Your task to perform on an android device: change alarm snooze length Image 0: 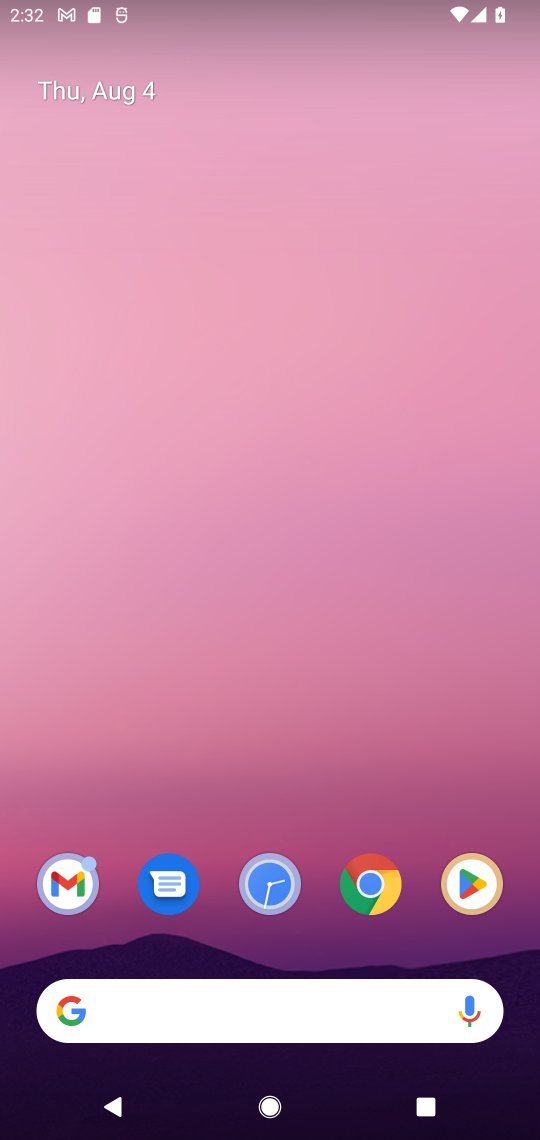
Step 0: drag from (222, 960) to (321, 116)
Your task to perform on an android device: change alarm snooze length Image 1: 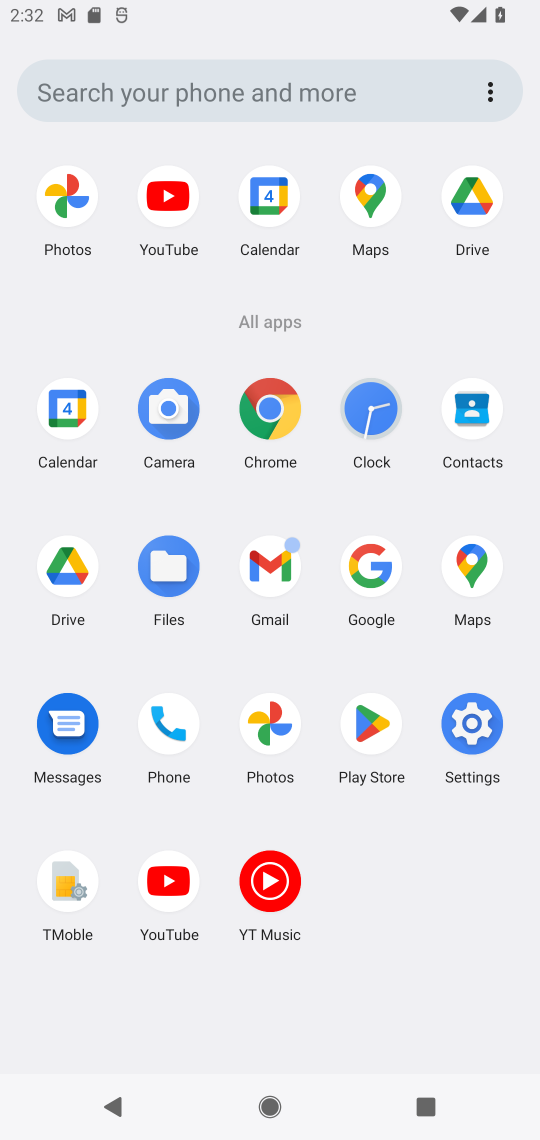
Step 1: click (376, 433)
Your task to perform on an android device: change alarm snooze length Image 2: 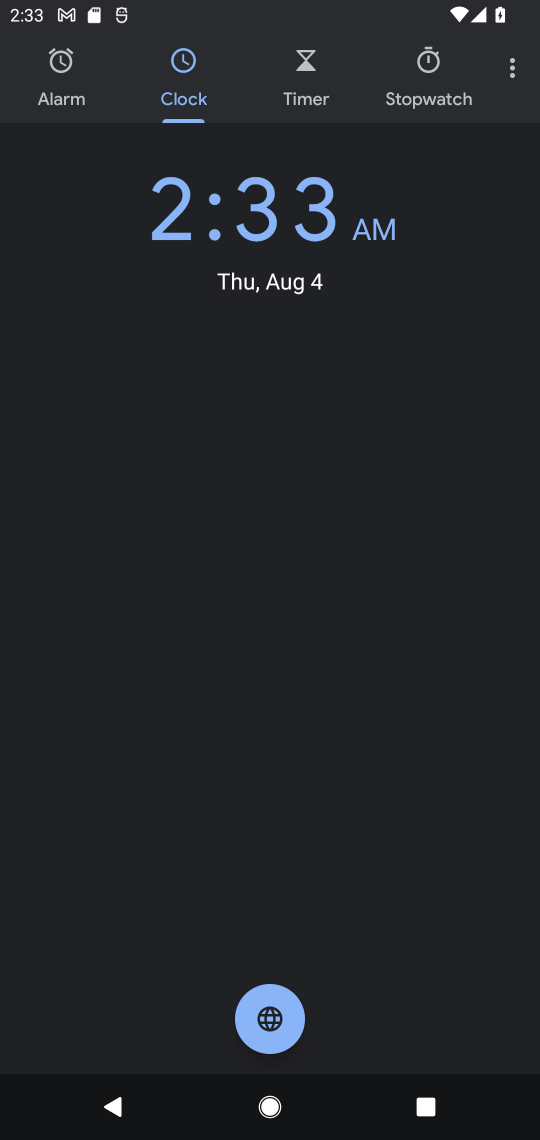
Step 2: press home button
Your task to perform on an android device: change alarm snooze length Image 3: 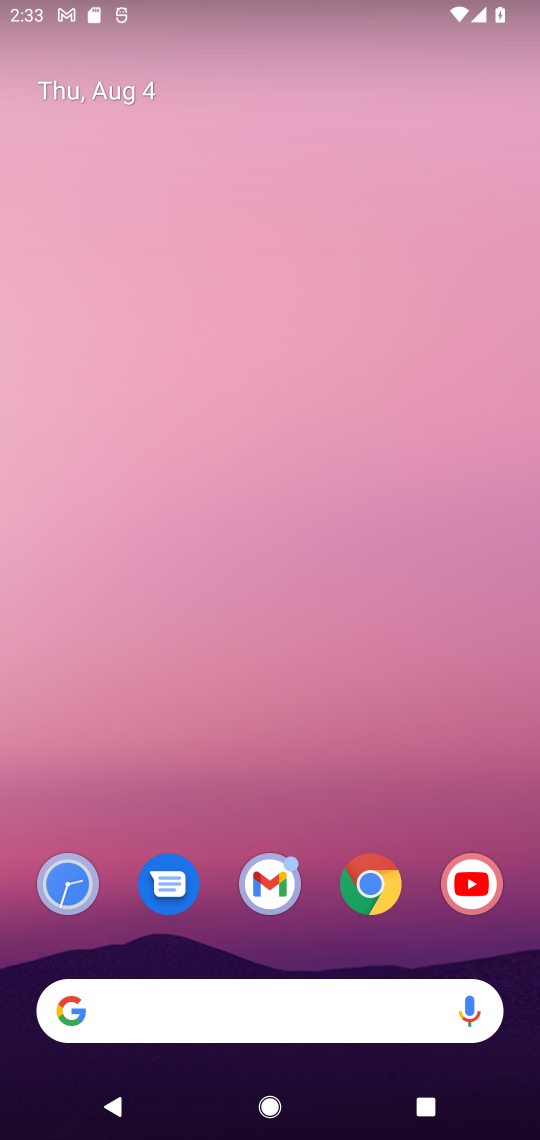
Step 3: drag from (299, 955) to (320, 367)
Your task to perform on an android device: change alarm snooze length Image 4: 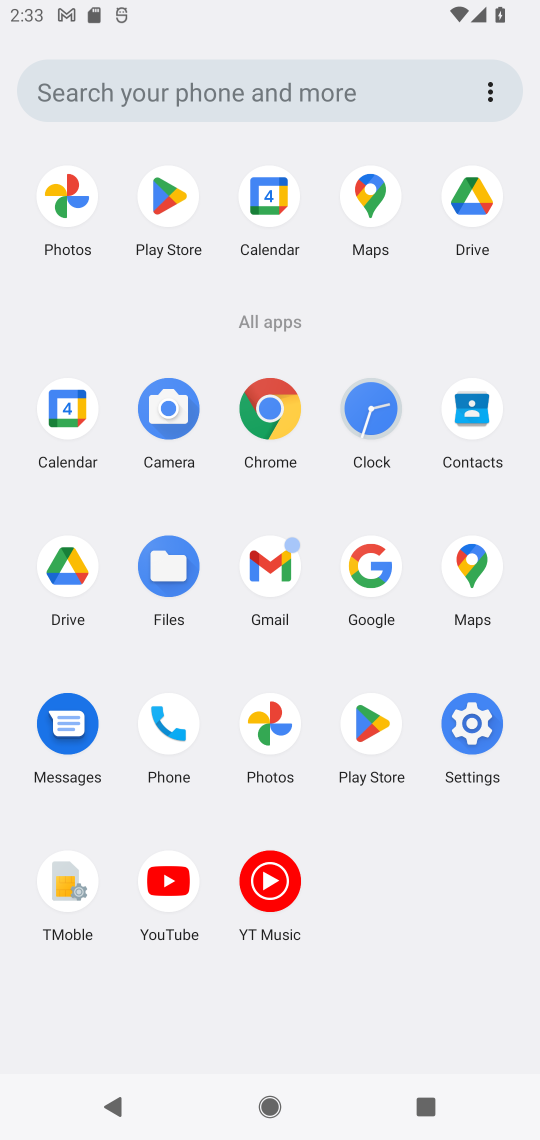
Step 4: click (354, 407)
Your task to perform on an android device: change alarm snooze length Image 5: 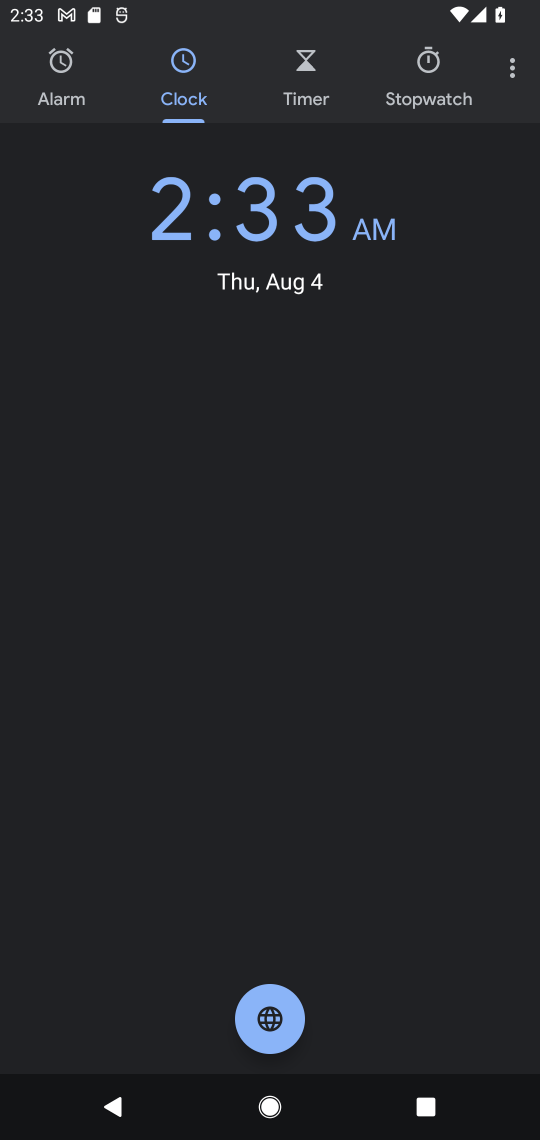
Step 5: click (508, 66)
Your task to perform on an android device: change alarm snooze length Image 6: 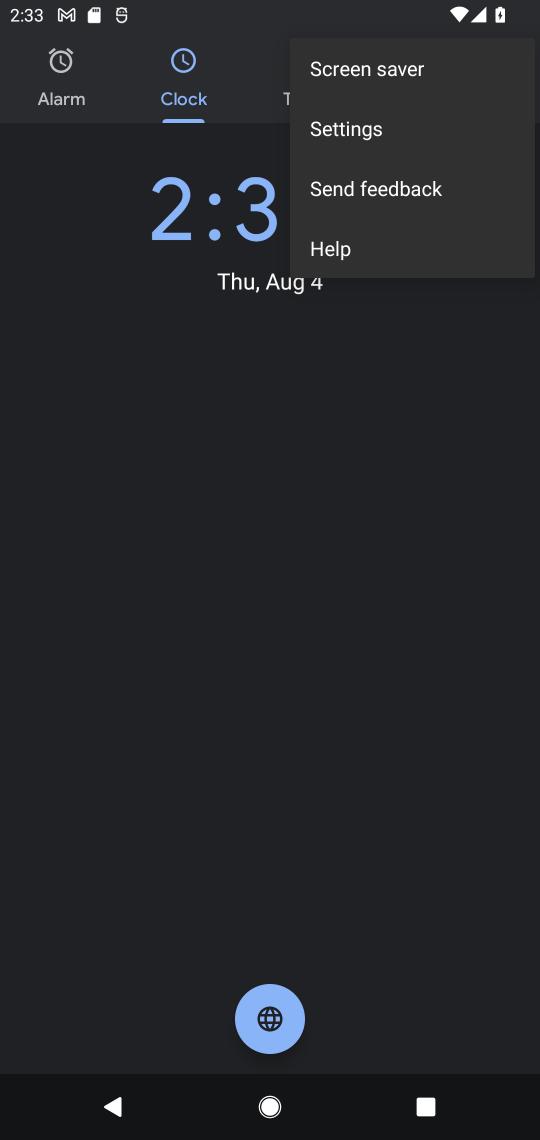
Step 6: click (415, 139)
Your task to perform on an android device: change alarm snooze length Image 7: 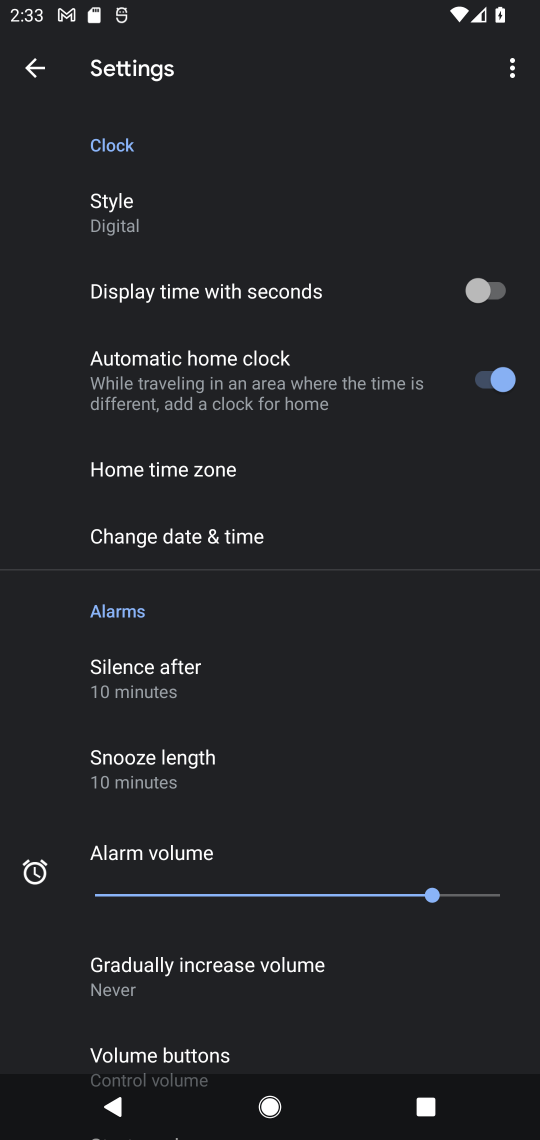
Step 7: task complete